Your task to perform on an android device: Show me popular games on the Play Store Image 0: 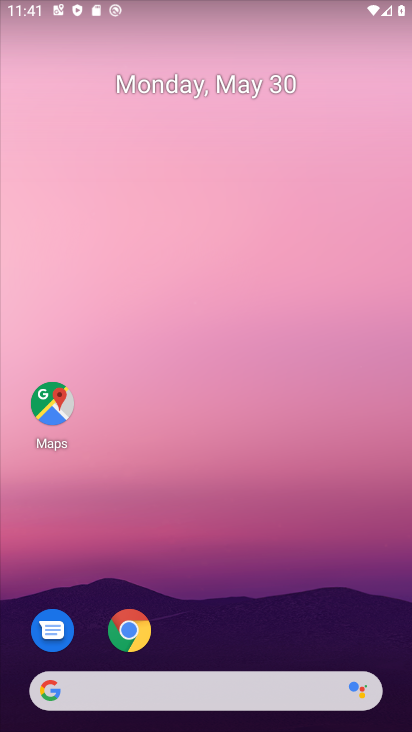
Step 0: drag from (260, 544) to (263, 18)
Your task to perform on an android device: Show me popular games on the Play Store Image 1: 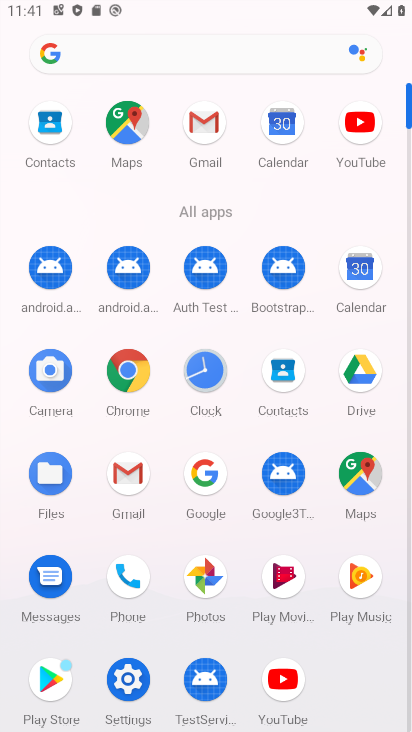
Step 1: click (56, 672)
Your task to perform on an android device: Show me popular games on the Play Store Image 2: 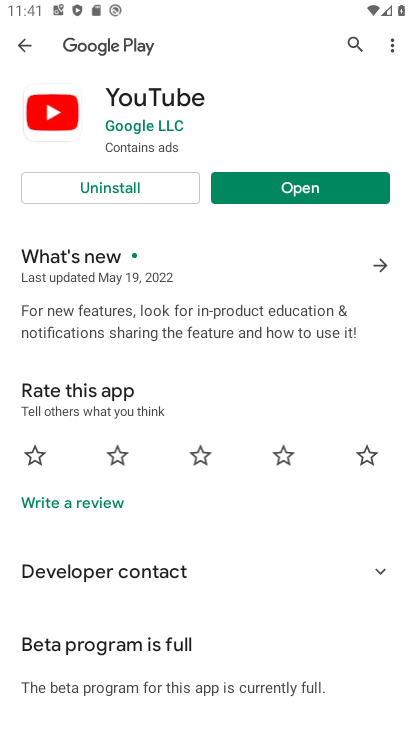
Step 2: click (30, 49)
Your task to perform on an android device: Show me popular games on the Play Store Image 3: 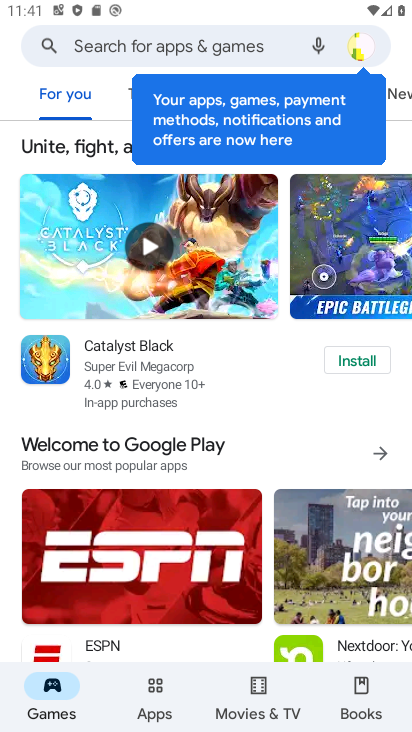
Step 3: click (43, 704)
Your task to perform on an android device: Show me popular games on the Play Store Image 4: 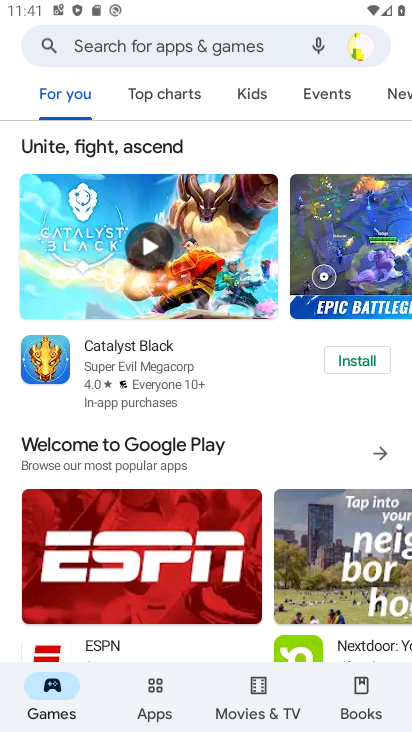
Step 4: click (175, 94)
Your task to perform on an android device: Show me popular games on the Play Store Image 5: 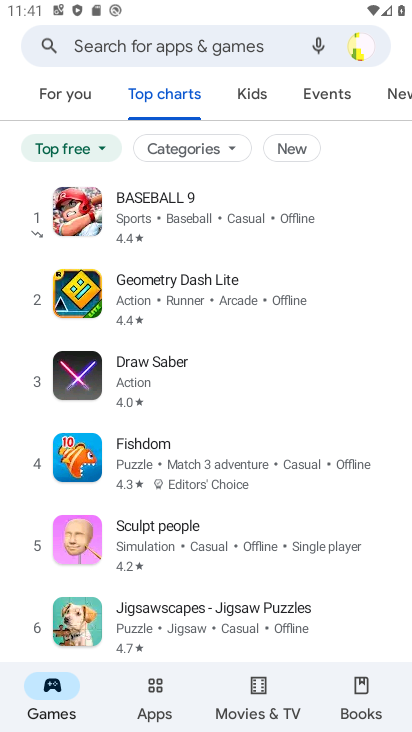
Step 5: task complete